Your task to perform on an android device: Open the calendar app, open the side menu, and click the "Day" option Image 0: 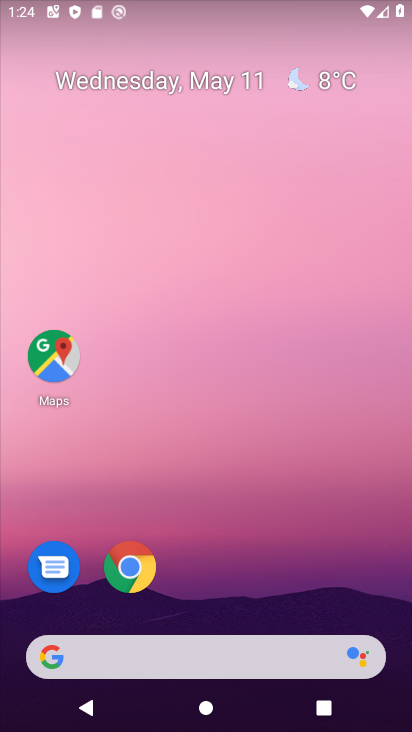
Step 0: drag from (356, 563) to (272, 218)
Your task to perform on an android device: Open the calendar app, open the side menu, and click the "Day" option Image 1: 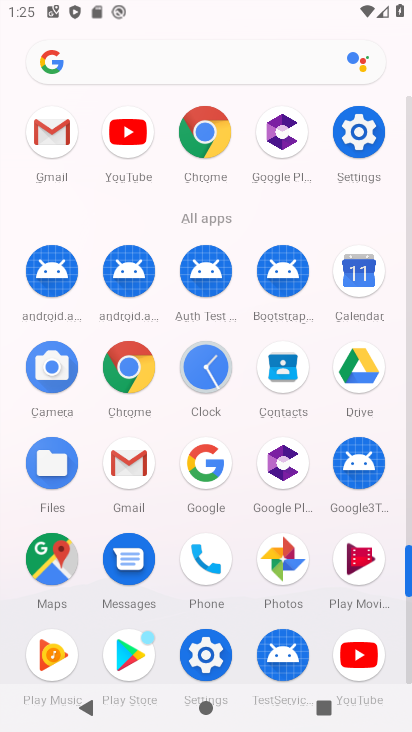
Step 1: click (360, 285)
Your task to perform on an android device: Open the calendar app, open the side menu, and click the "Day" option Image 2: 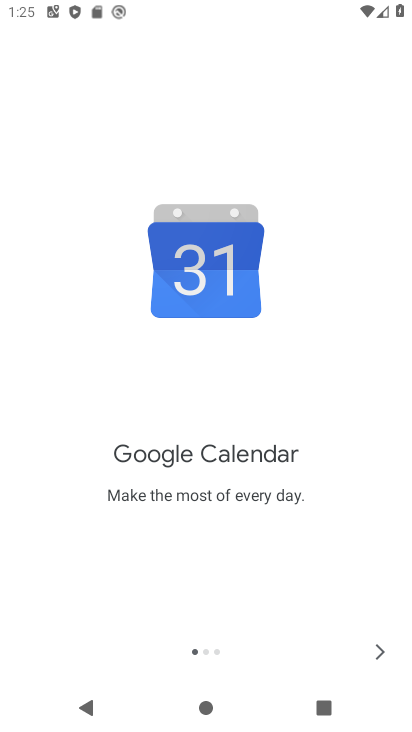
Step 2: click (384, 651)
Your task to perform on an android device: Open the calendar app, open the side menu, and click the "Day" option Image 3: 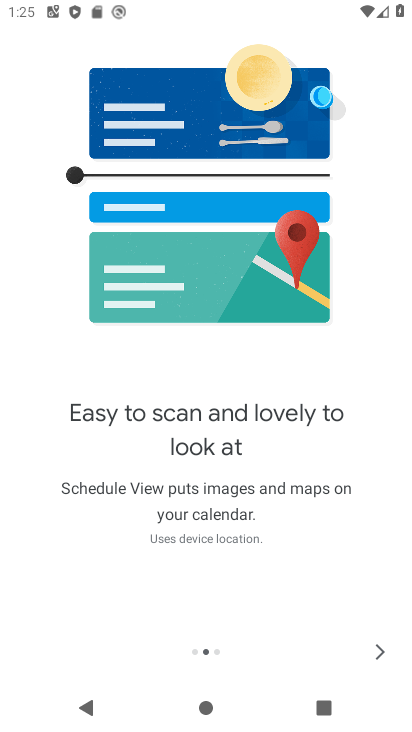
Step 3: click (384, 651)
Your task to perform on an android device: Open the calendar app, open the side menu, and click the "Day" option Image 4: 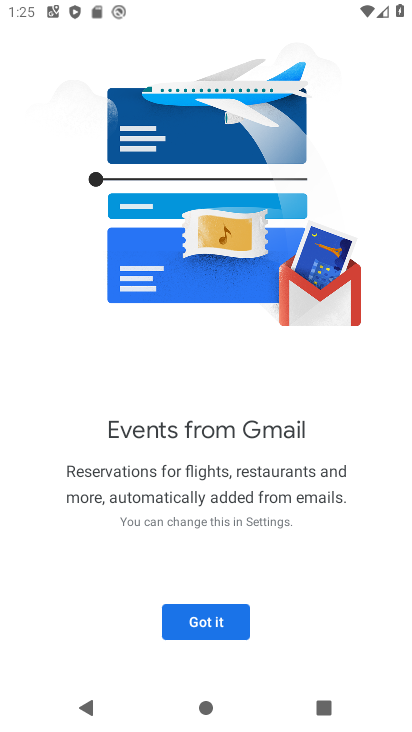
Step 4: click (214, 623)
Your task to perform on an android device: Open the calendar app, open the side menu, and click the "Day" option Image 5: 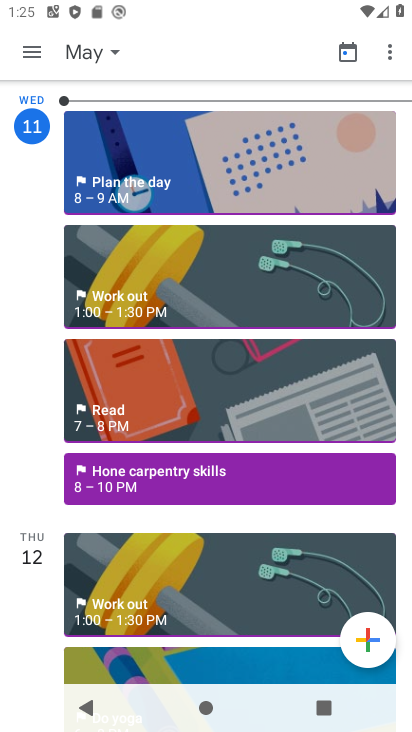
Step 5: click (37, 43)
Your task to perform on an android device: Open the calendar app, open the side menu, and click the "Day" option Image 6: 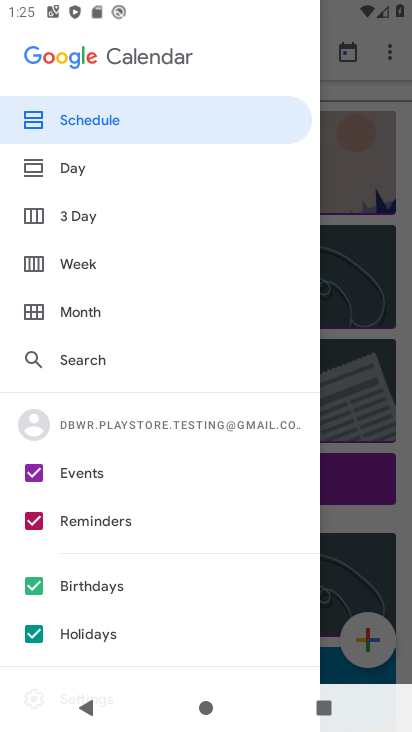
Step 6: click (86, 160)
Your task to perform on an android device: Open the calendar app, open the side menu, and click the "Day" option Image 7: 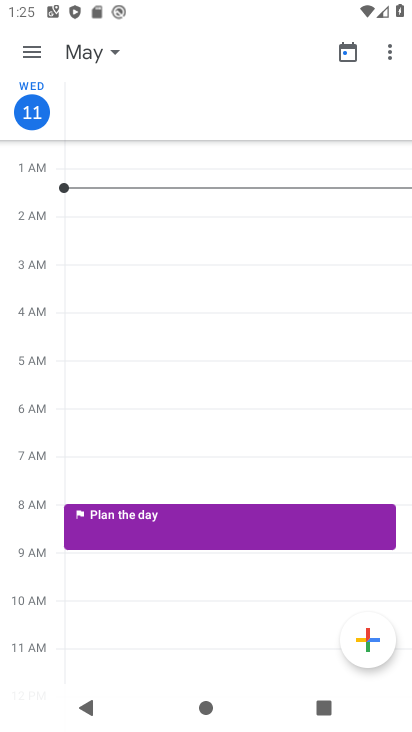
Step 7: task complete